Your task to perform on an android device: Search for sushi restaurants on Maps Image 0: 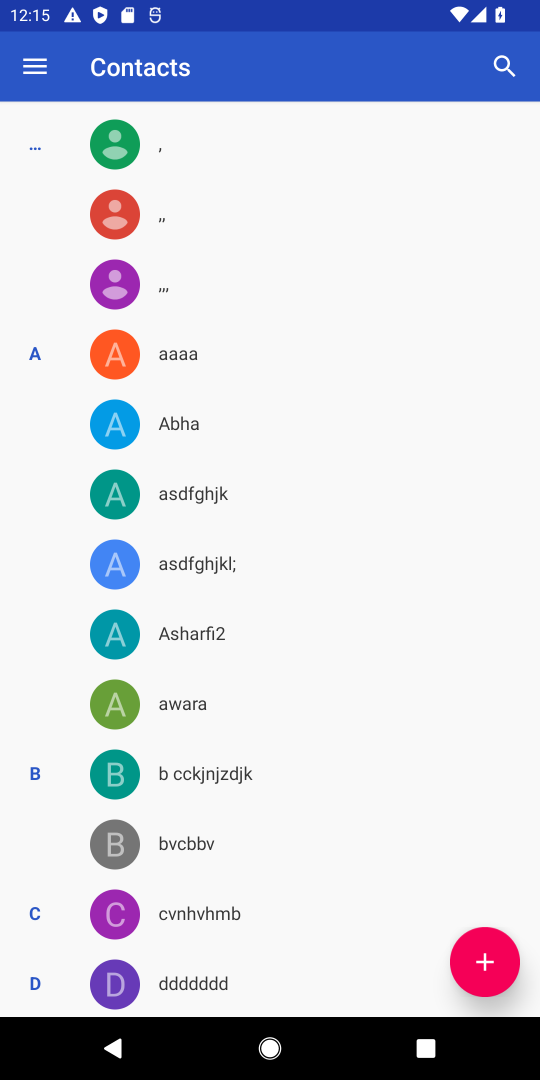
Step 0: press home button
Your task to perform on an android device: Search for sushi restaurants on Maps Image 1: 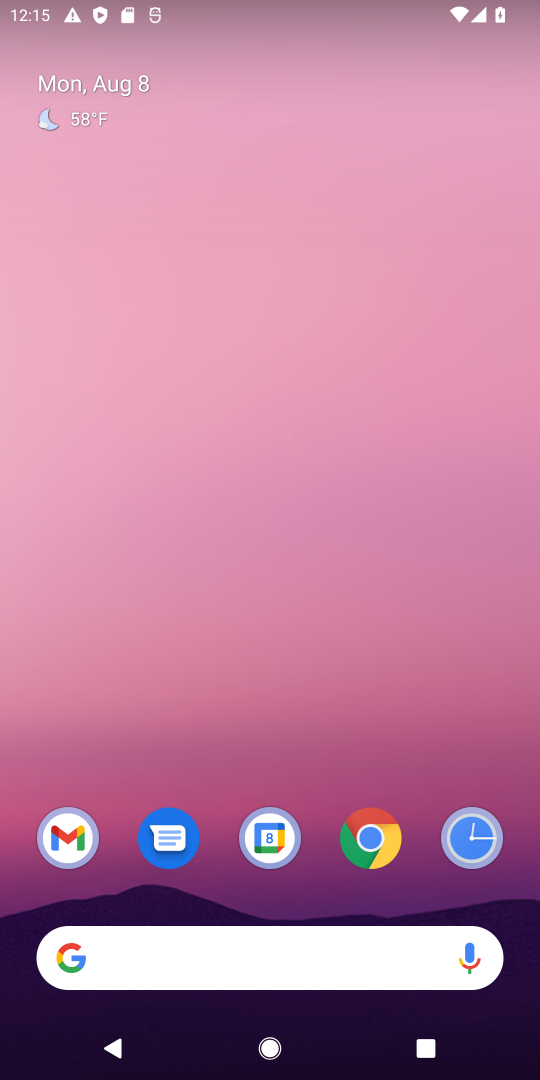
Step 1: drag from (333, 798) to (419, 143)
Your task to perform on an android device: Search for sushi restaurants on Maps Image 2: 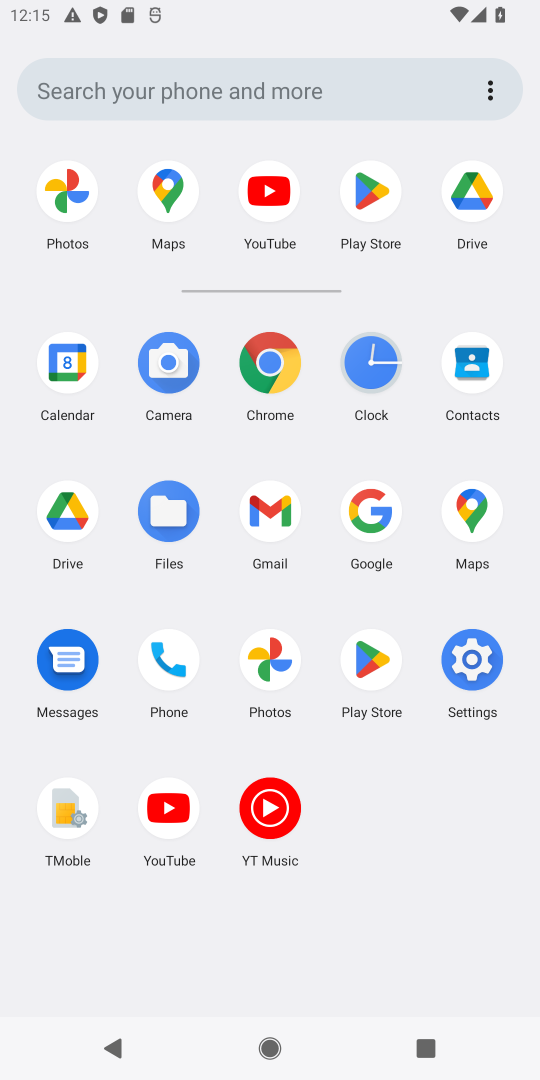
Step 2: click (166, 196)
Your task to perform on an android device: Search for sushi restaurants on Maps Image 3: 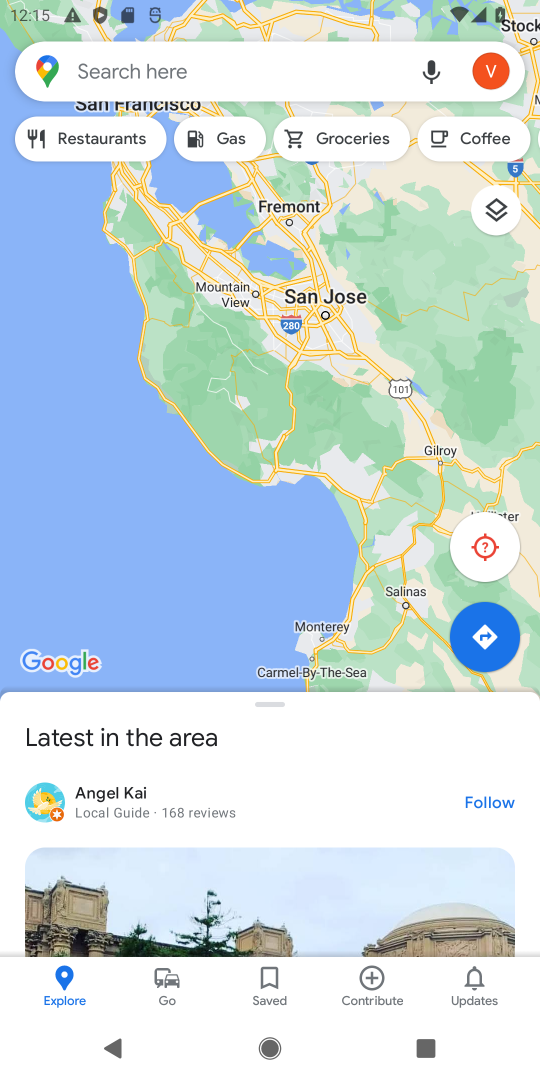
Step 3: type "sushi restaurants"
Your task to perform on an android device: Search for sushi restaurants on Maps Image 4: 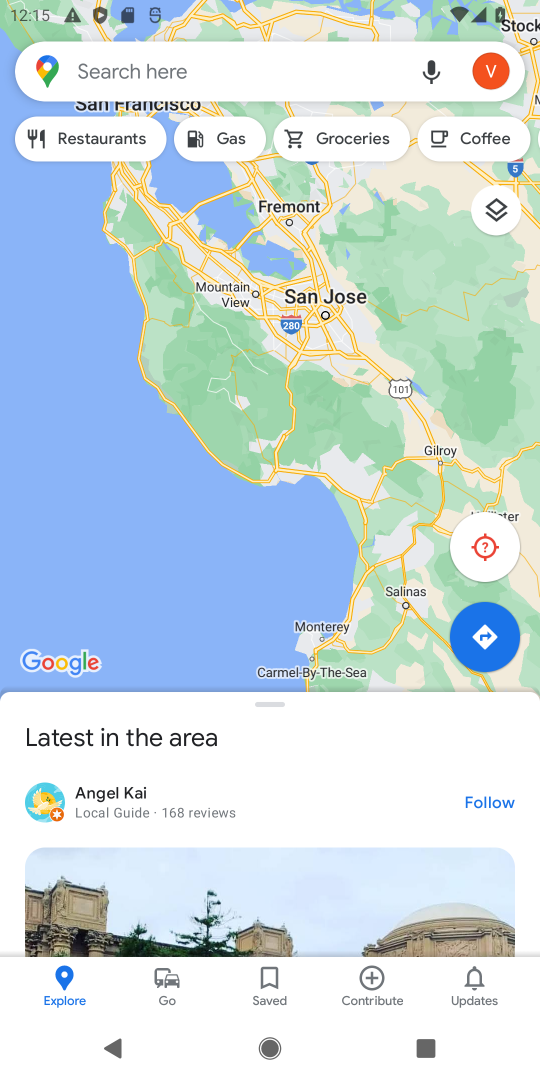
Step 4: click (169, 64)
Your task to perform on an android device: Search for sushi restaurants on Maps Image 5: 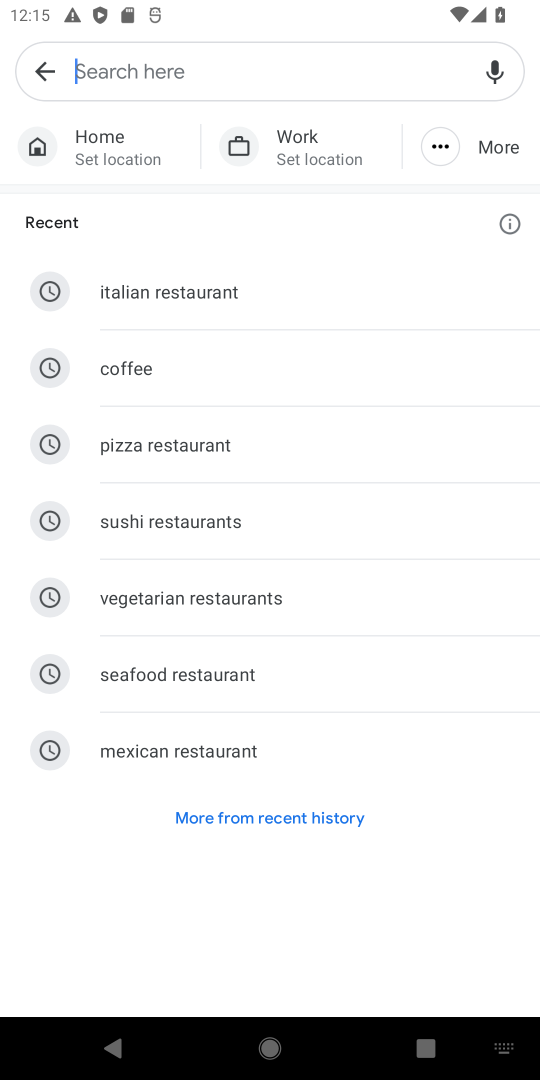
Step 5: click (172, 518)
Your task to perform on an android device: Search for sushi restaurants on Maps Image 6: 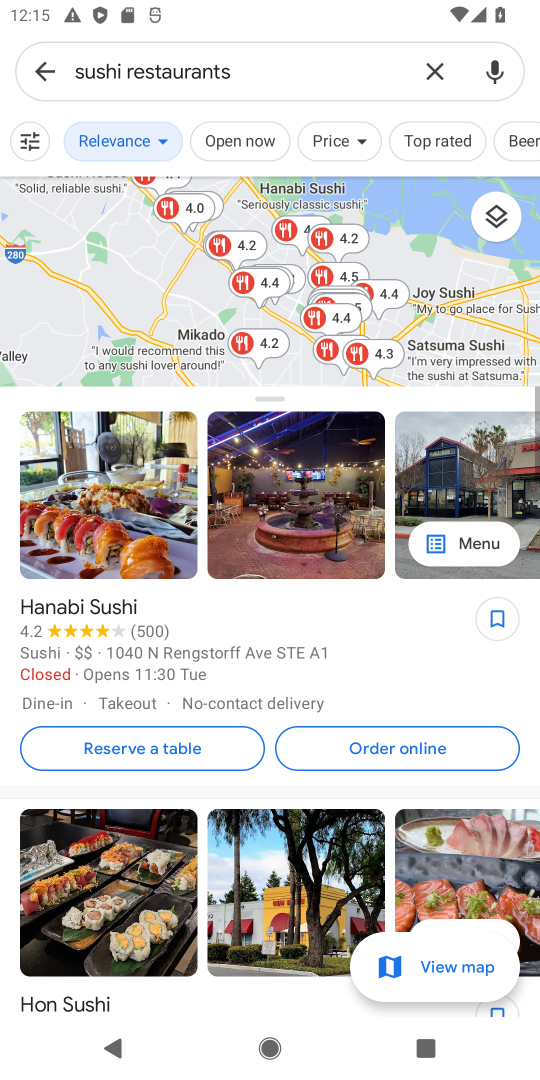
Step 6: task complete